Your task to perform on an android device: Go to location settings Image 0: 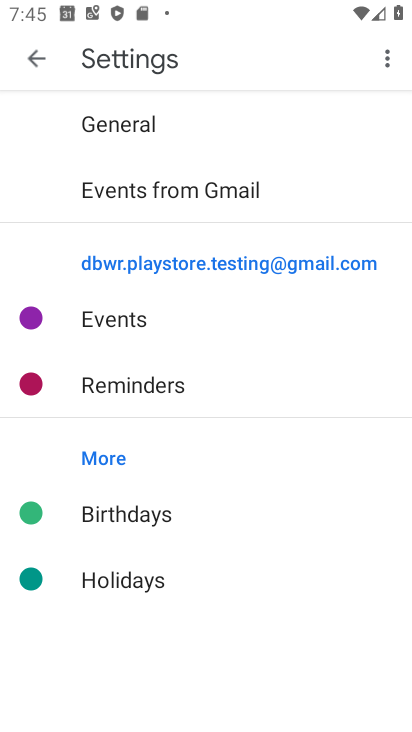
Step 0: press home button
Your task to perform on an android device: Go to location settings Image 1: 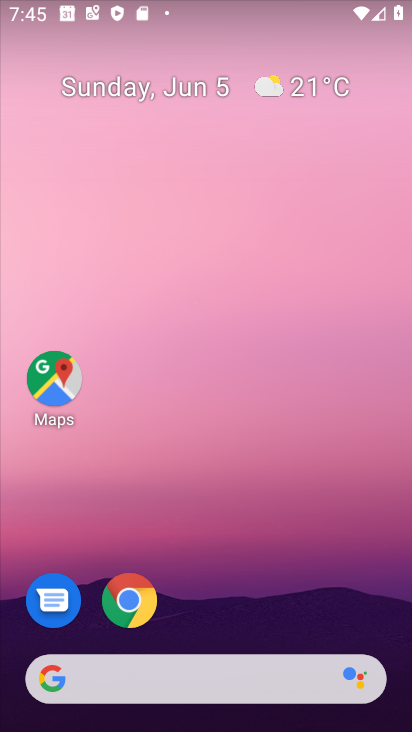
Step 1: drag from (219, 576) to (226, 19)
Your task to perform on an android device: Go to location settings Image 2: 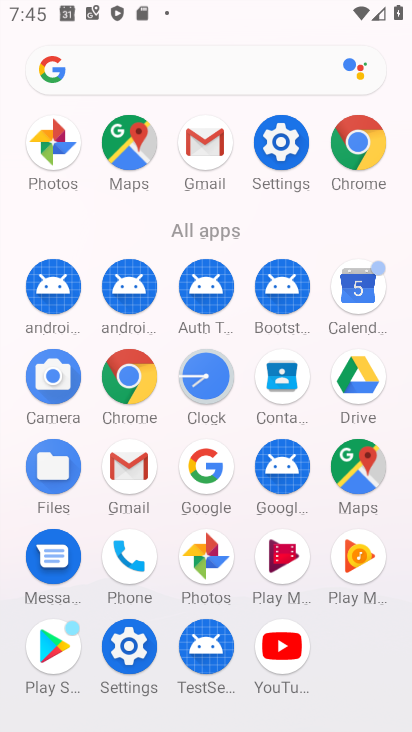
Step 2: click (289, 130)
Your task to perform on an android device: Go to location settings Image 3: 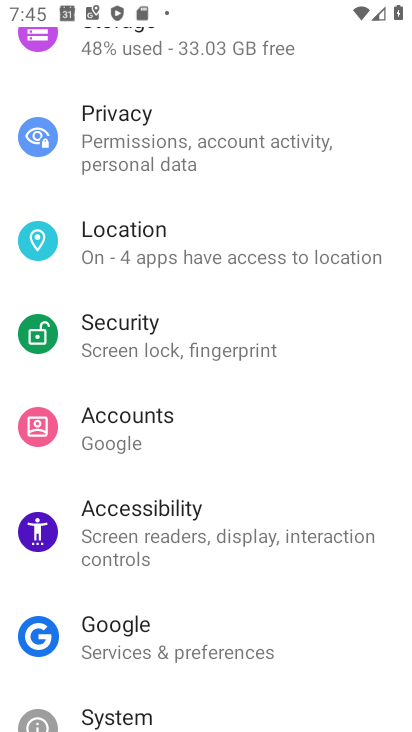
Step 3: click (257, 245)
Your task to perform on an android device: Go to location settings Image 4: 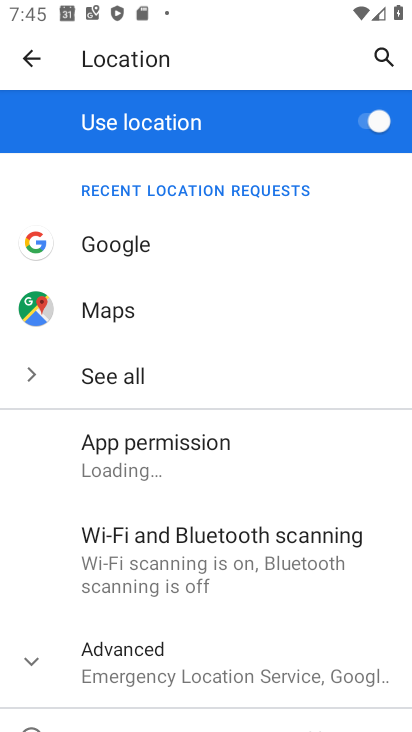
Step 4: task complete